Your task to perform on an android device: Show me the alarms in the clock app Image 0: 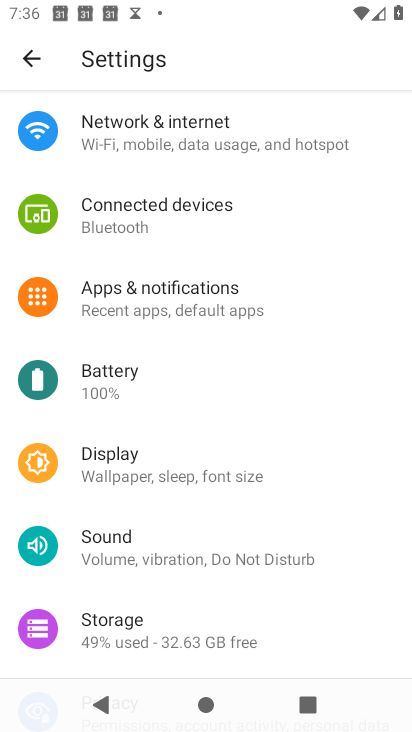
Step 0: press home button
Your task to perform on an android device: Show me the alarms in the clock app Image 1: 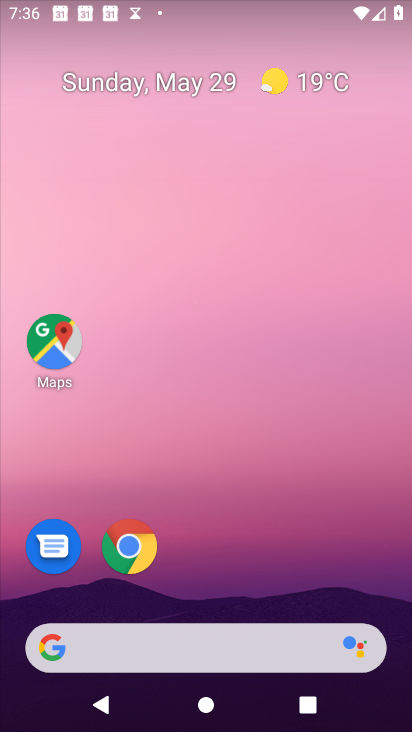
Step 1: drag from (217, 585) to (215, 95)
Your task to perform on an android device: Show me the alarms in the clock app Image 2: 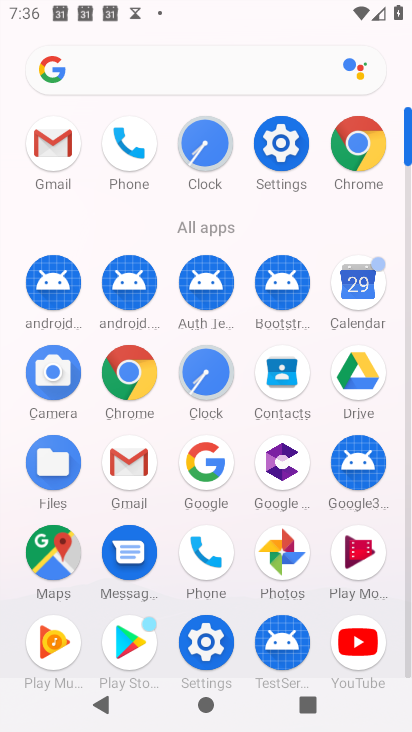
Step 2: click (206, 153)
Your task to perform on an android device: Show me the alarms in the clock app Image 3: 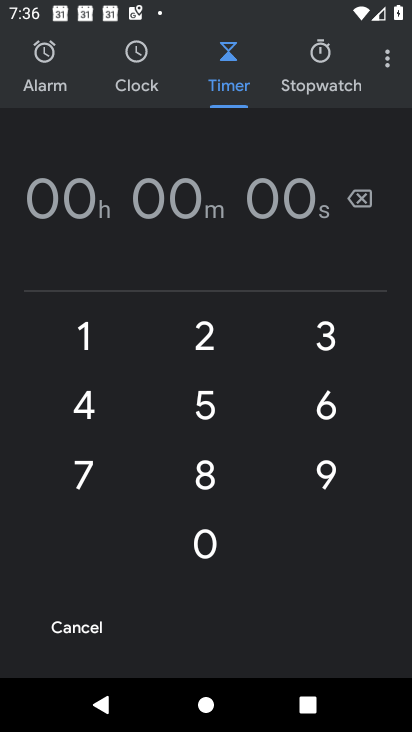
Step 3: click (43, 78)
Your task to perform on an android device: Show me the alarms in the clock app Image 4: 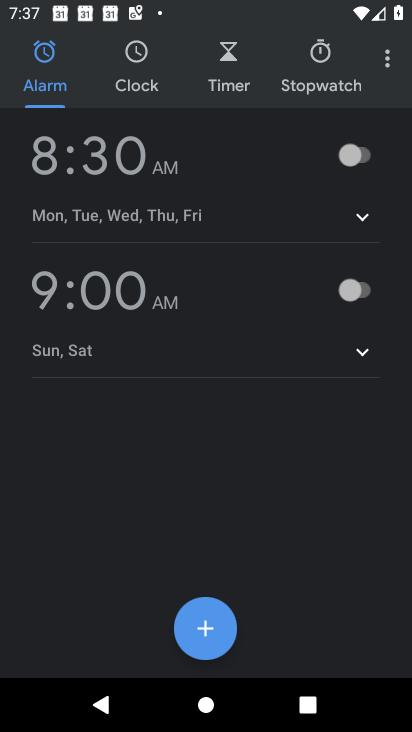
Step 4: task complete